Your task to perform on an android device: change the upload size in google photos Image 0: 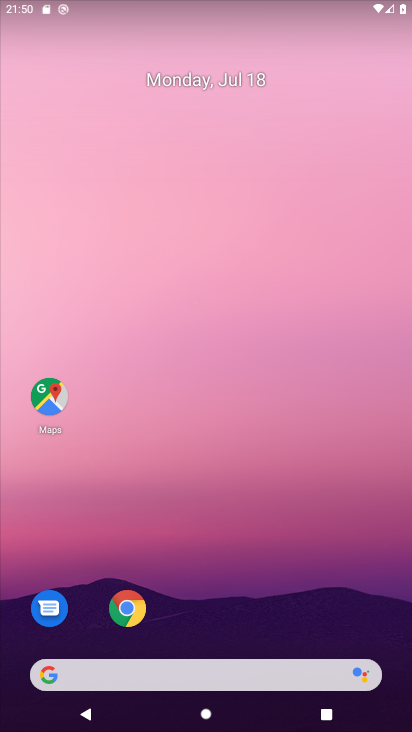
Step 0: drag from (205, 608) to (247, 103)
Your task to perform on an android device: change the upload size in google photos Image 1: 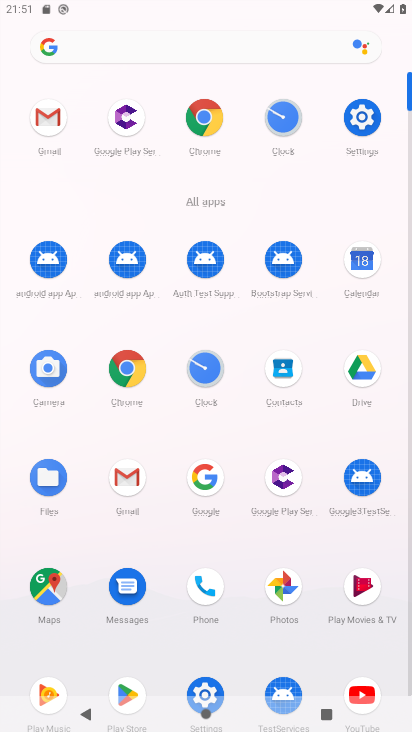
Step 1: click (275, 580)
Your task to perform on an android device: change the upload size in google photos Image 2: 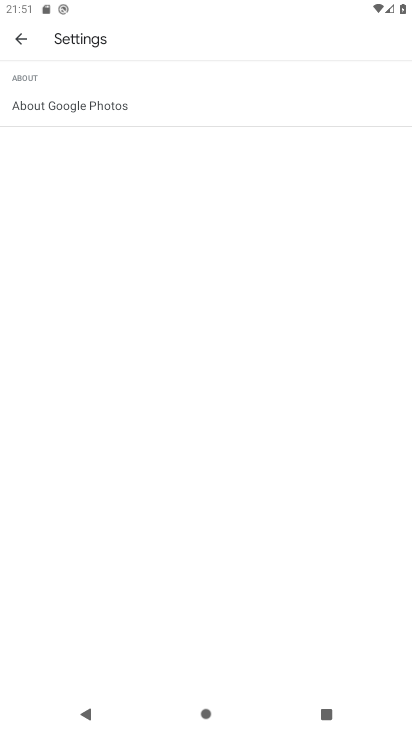
Step 2: press back button
Your task to perform on an android device: change the upload size in google photos Image 3: 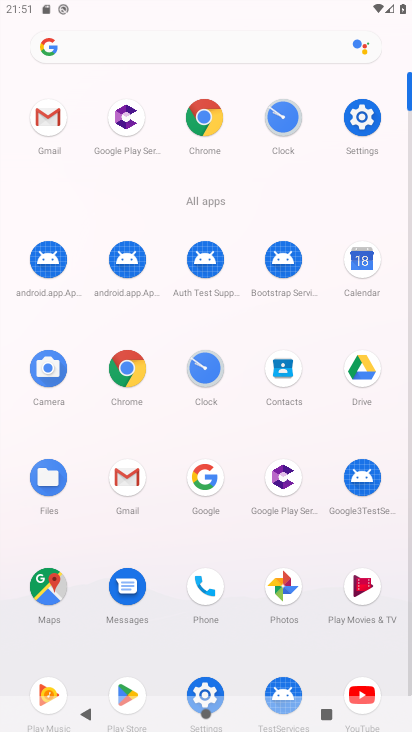
Step 3: click (297, 582)
Your task to perform on an android device: change the upload size in google photos Image 4: 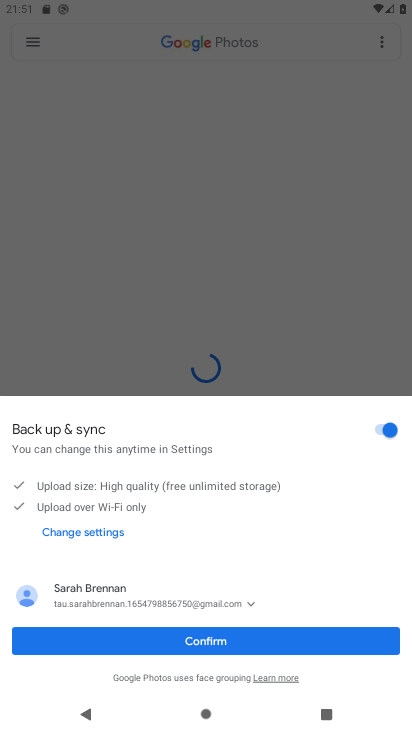
Step 4: click (212, 641)
Your task to perform on an android device: change the upload size in google photos Image 5: 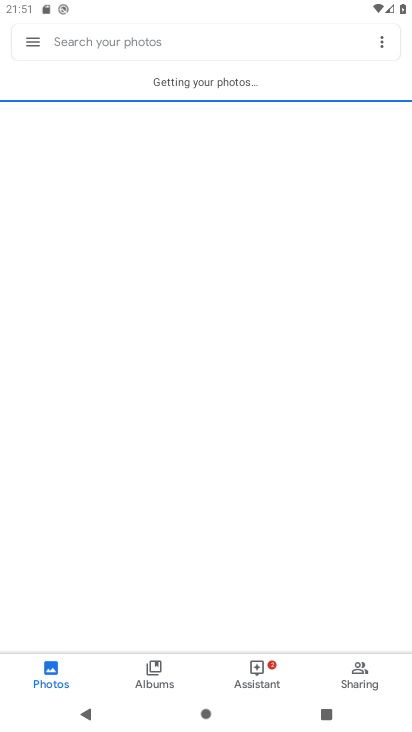
Step 5: click (35, 48)
Your task to perform on an android device: change the upload size in google photos Image 6: 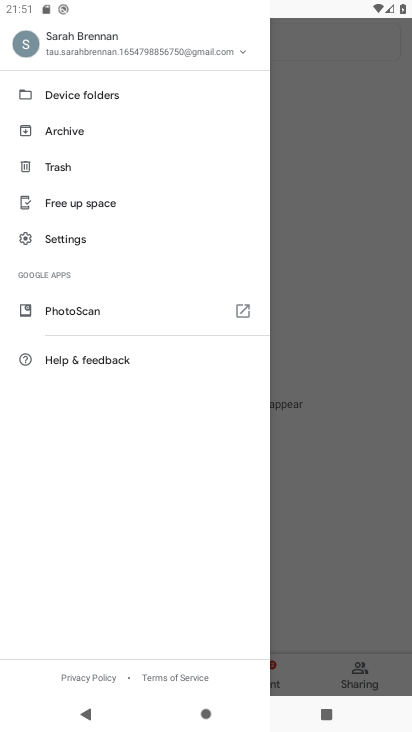
Step 6: click (91, 251)
Your task to perform on an android device: change the upload size in google photos Image 7: 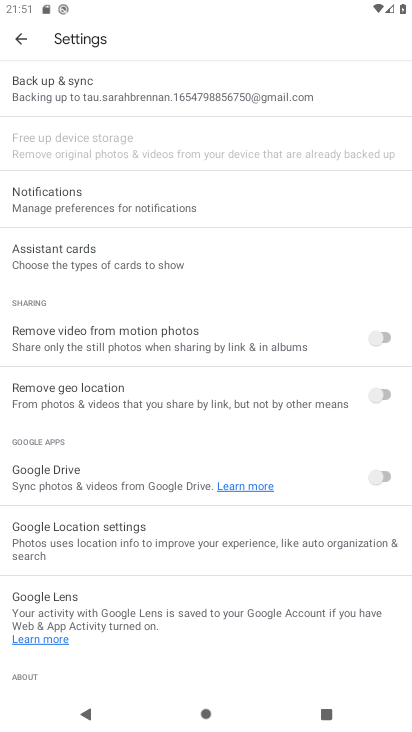
Step 7: click (187, 111)
Your task to perform on an android device: change the upload size in google photos Image 8: 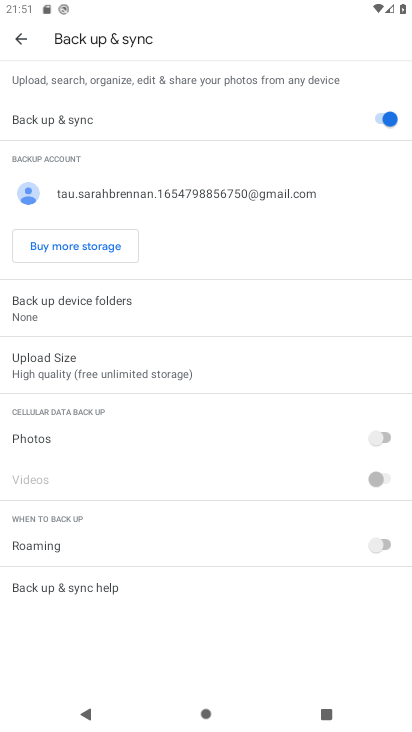
Step 8: click (122, 370)
Your task to perform on an android device: change the upload size in google photos Image 9: 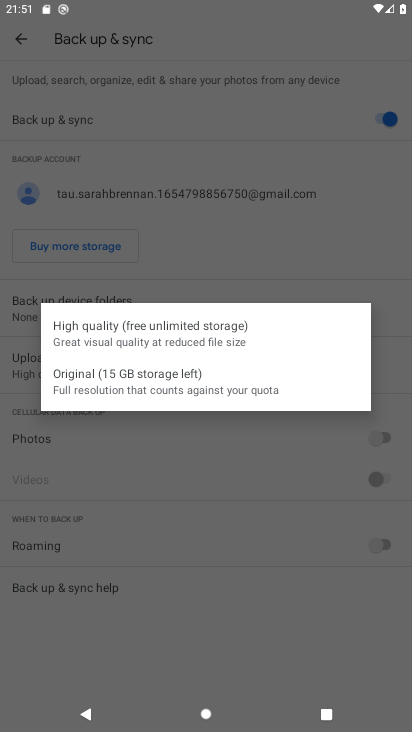
Step 9: click (118, 387)
Your task to perform on an android device: change the upload size in google photos Image 10: 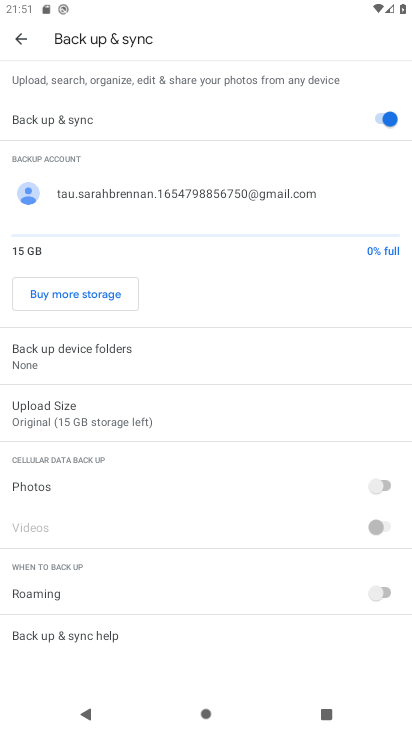
Step 10: task complete